Your task to perform on an android device: allow notifications from all sites in the chrome app Image 0: 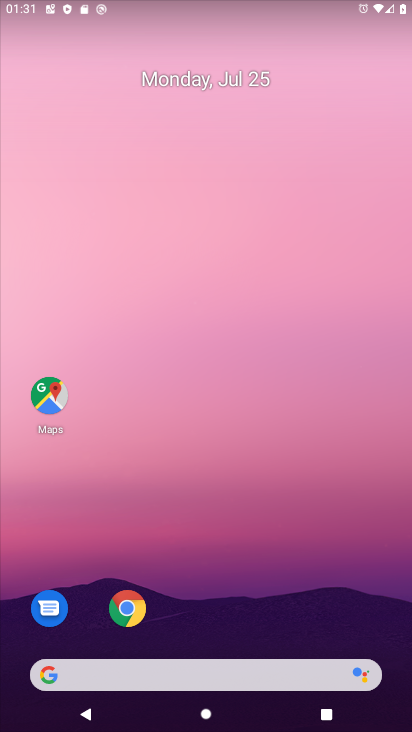
Step 0: click (163, 616)
Your task to perform on an android device: allow notifications from all sites in the chrome app Image 1: 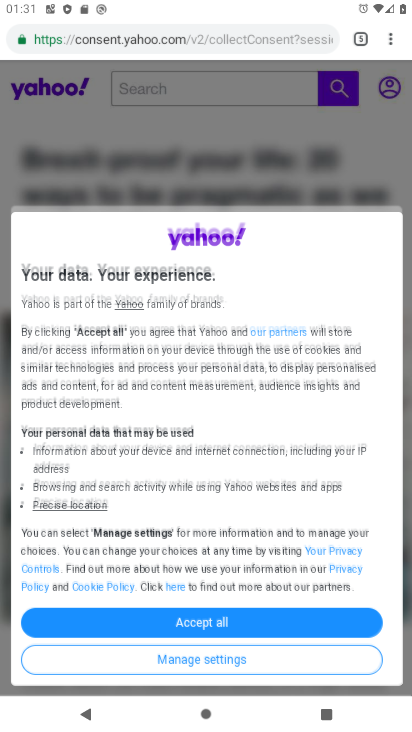
Step 1: click (197, 630)
Your task to perform on an android device: allow notifications from all sites in the chrome app Image 2: 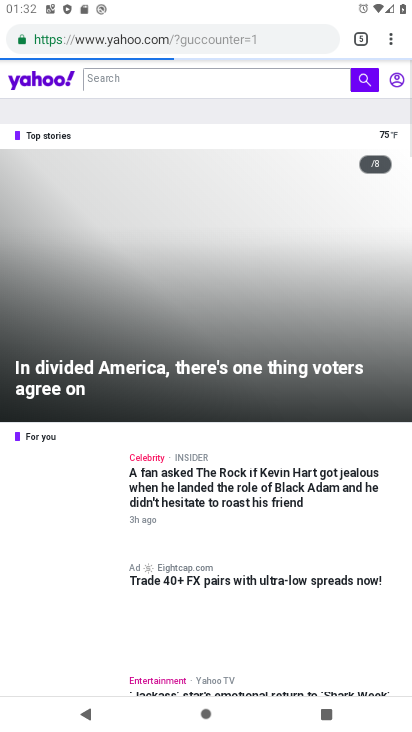
Step 2: drag from (389, 43) to (260, 437)
Your task to perform on an android device: allow notifications from all sites in the chrome app Image 3: 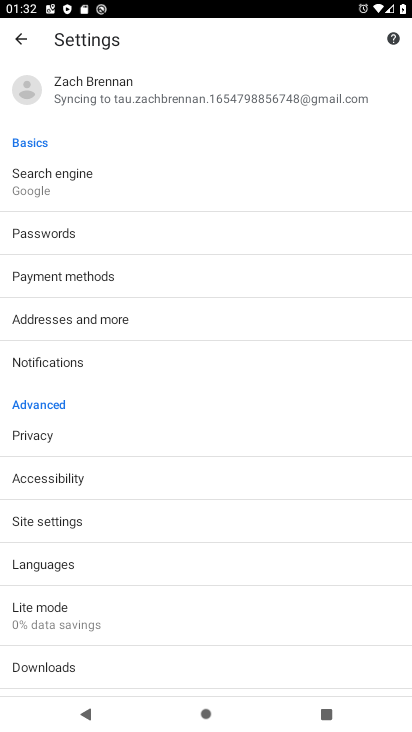
Step 3: click (53, 528)
Your task to perform on an android device: allow notifications from all sites in the chrome app Image 4: 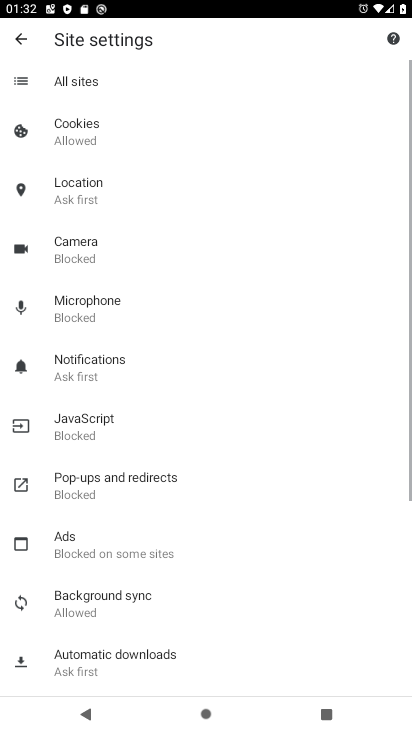
Step 4: click (79, 363)
Your task to perform on an android device: allow notifications from all sites in the chrome app Image 5: 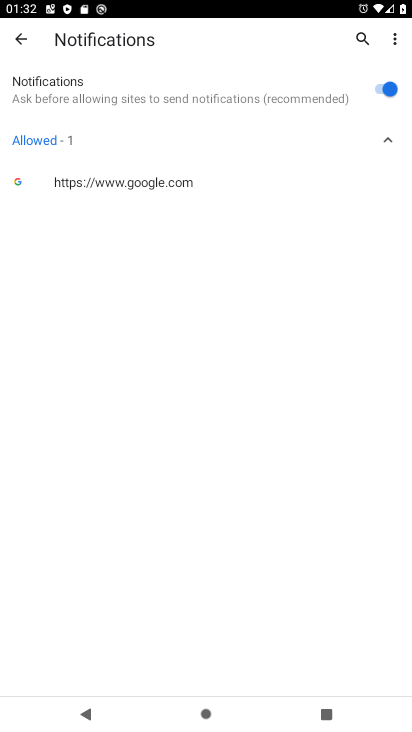
Step 5: task complete